Your task to perform on an android device: move a message to another label in the gmail app Image 0: 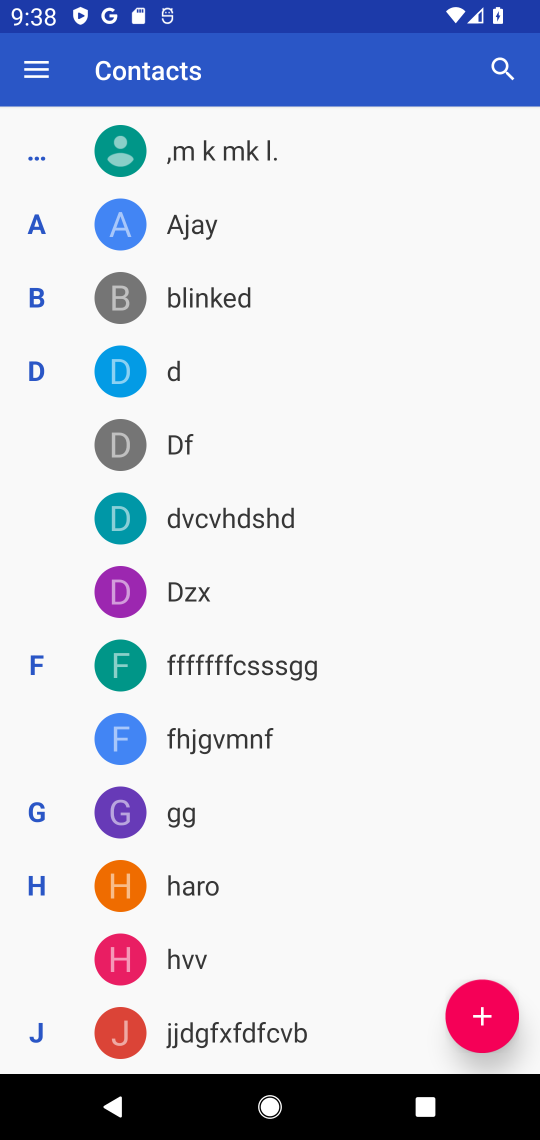
Step 0: press home button
Your task to perform on an android device: move a message to another label in the gmail app Image 1: 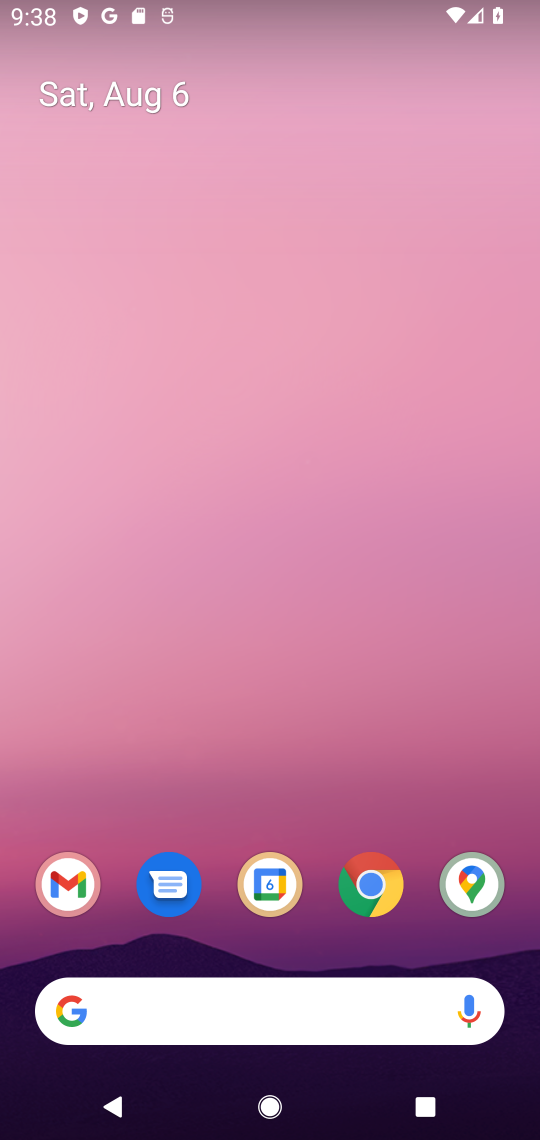
Step 1: click (67, 889)
Your task to perform on an android device: move a message to another label in the gmail app Image 2: 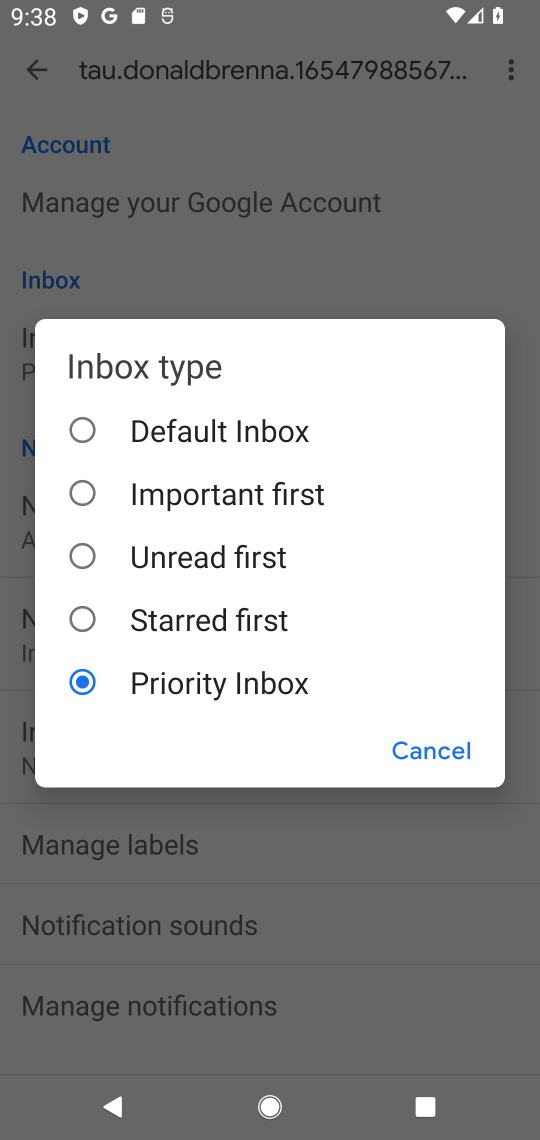
Step 2: click (418, 743)
Your task to perform on an android device: move a message to another label in the gmail app Image 3: 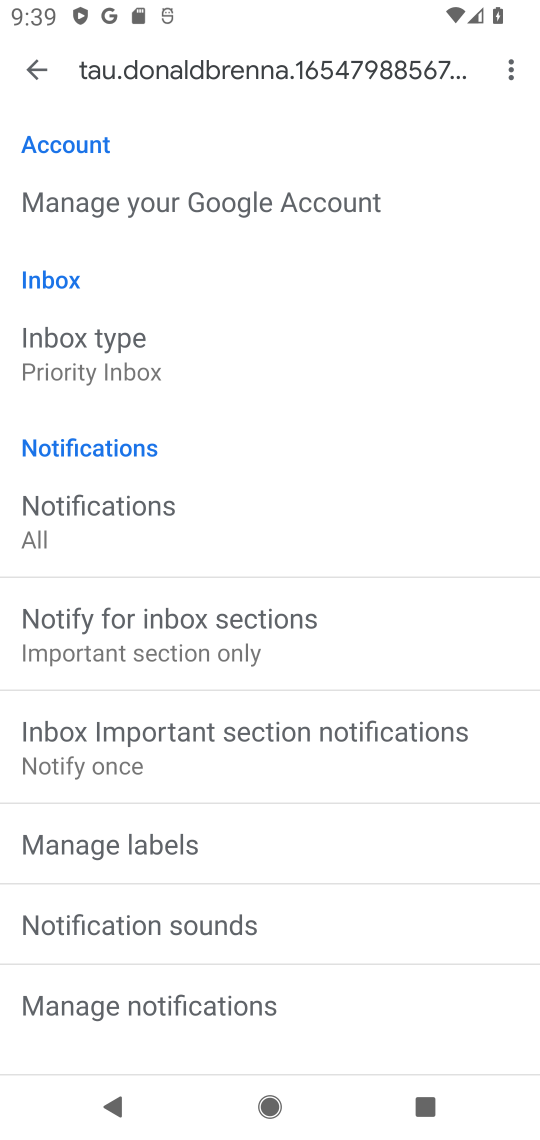
Step 3: press back button
Your task to perform on an android device: move a message to another label in the gmail app Image 4: 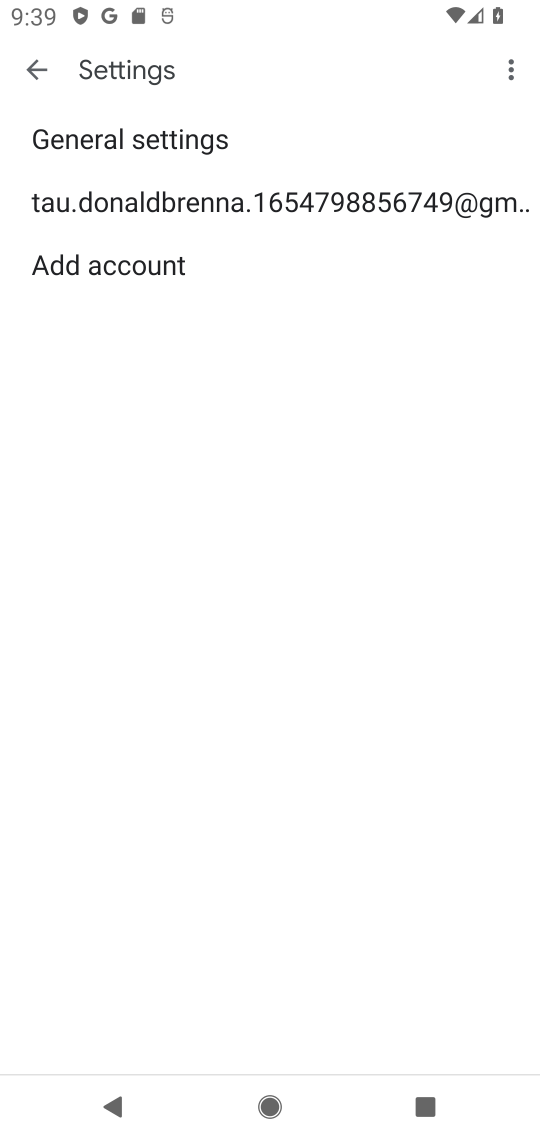
Step 4: press back button
Your task to perform on an android device: move a message to another label in the gmail app Image 5: 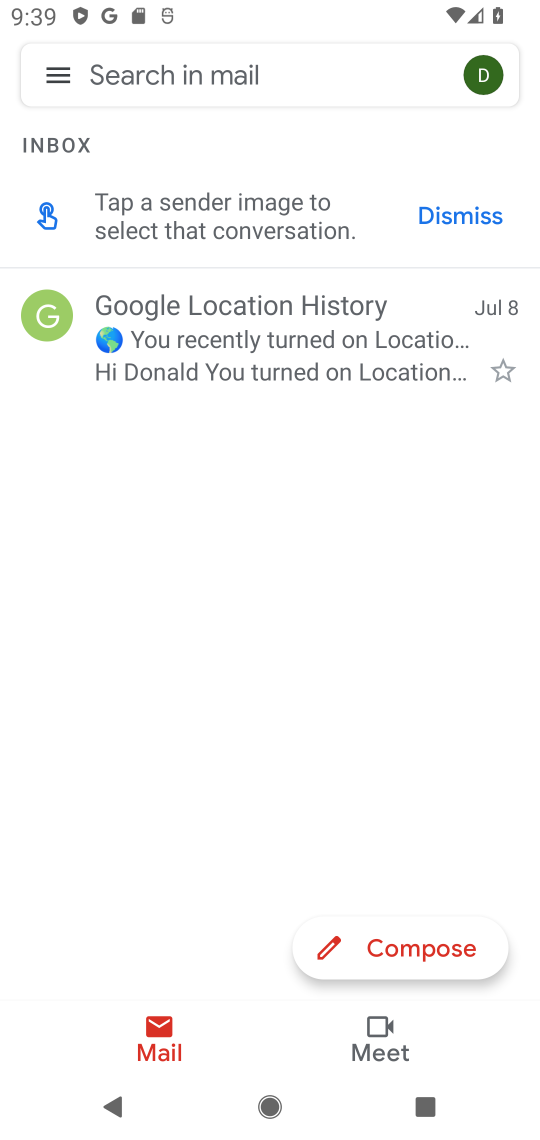
Step 5: click (260, 312)
Your task to perform on an android device: move a message to another label in the gmail app Image 6: 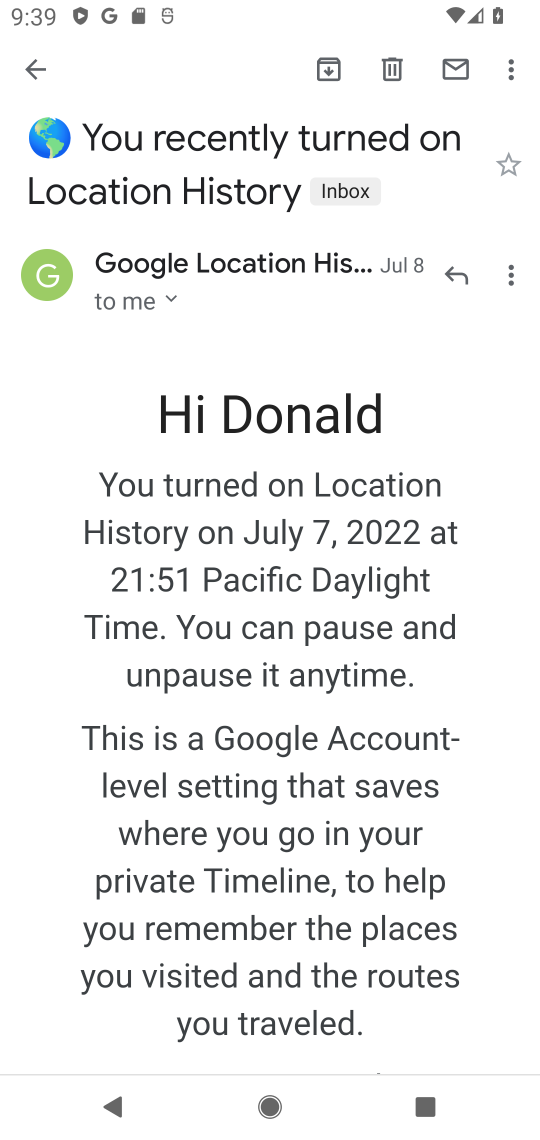
Step 6: click (510, 77)
Your task to perform on an android device: move a message to another label in the gmail app Image 7: 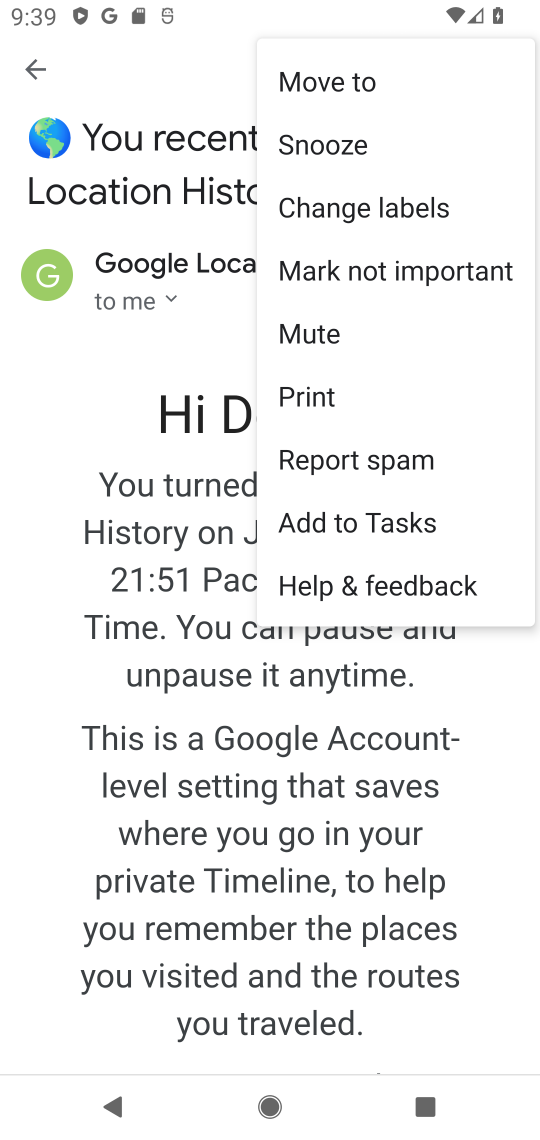
Step 7: click (338, 84)
Your task to perform on an android device: move a message to another label in the gmail app Image 8: 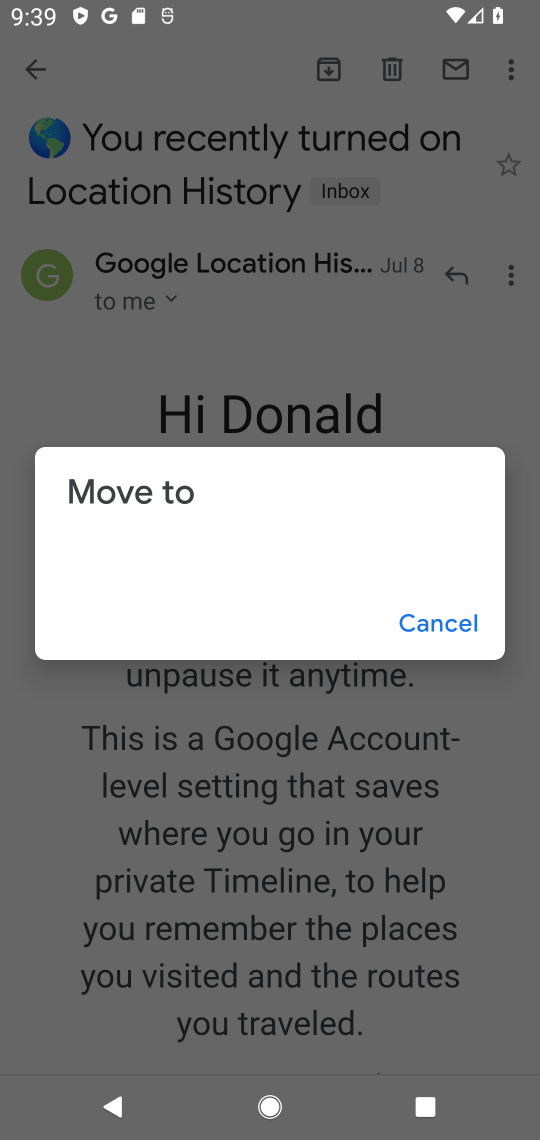
Step 8: task complete